Your task to perform on an android device: Open display settings Image 0: 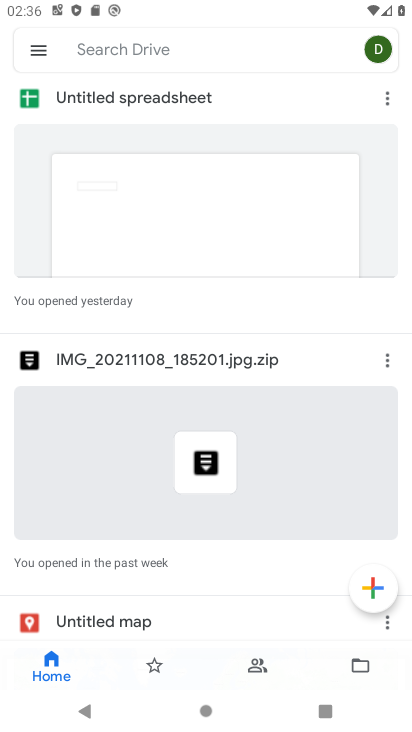
Step 0: press home button
Your task to perform on an android device: Open display settings Image 1: 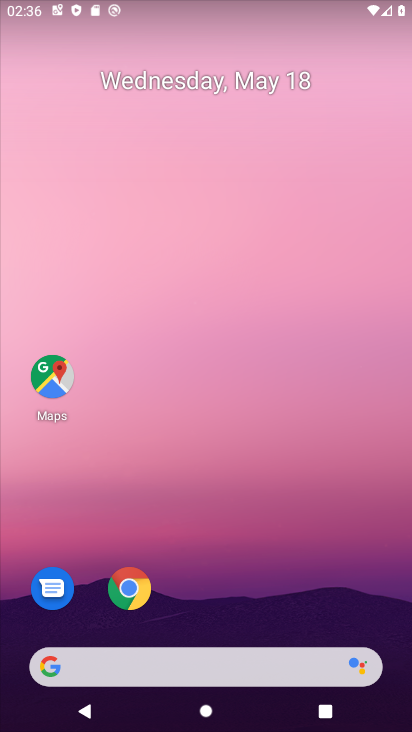
Step 1: drag from (42, 592) to (281, 66)
Your task to perform on an android device: Open display settings Image 2: 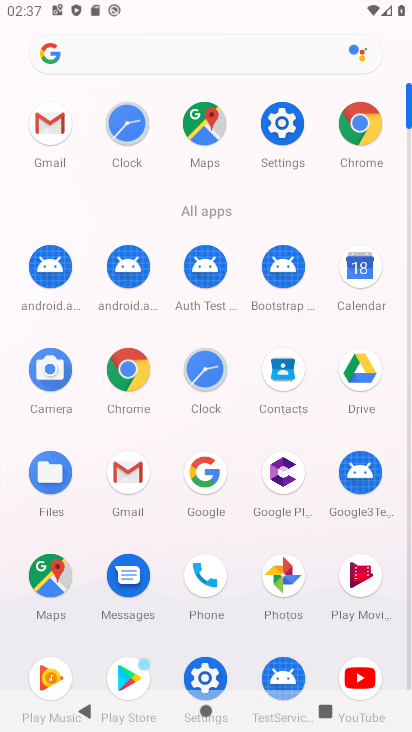
Step 2: click (194, 674)
Your task to perform on an android device: Open display settings Image 3: 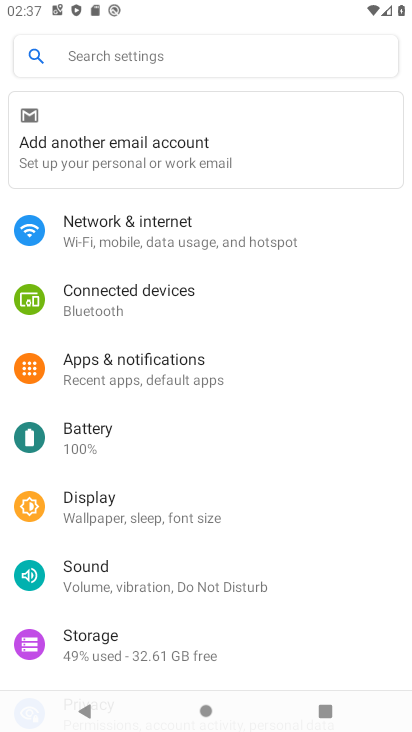
Step 3: click (156, 502)
Your task to perform on an android device: Open display settings Image 4: 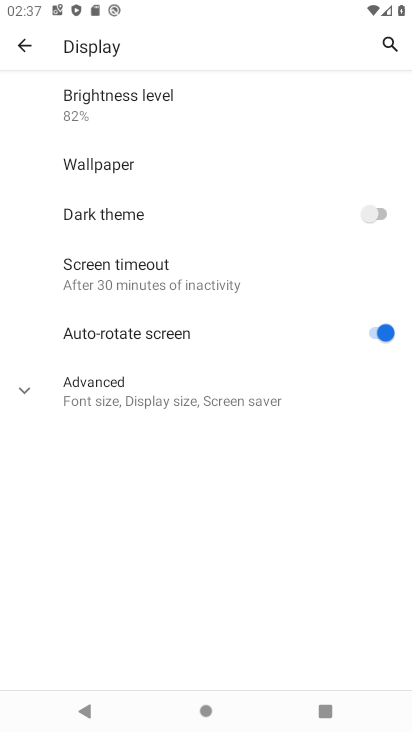
Step 4: task complete